Your task to perform on an android device: turn off javascript in the chrome app Image 0: 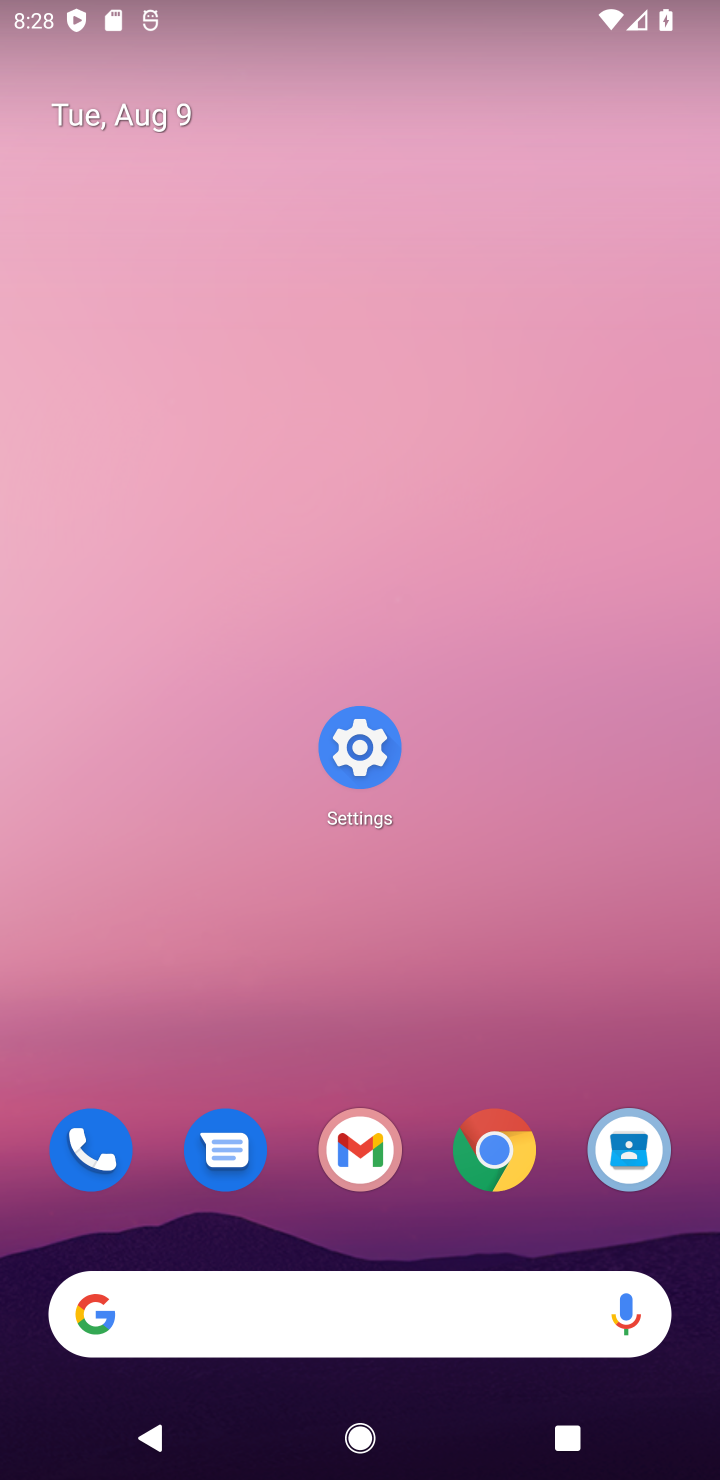
Step 0: press home button
Your task to perform on an android device: turn off javascript in the chrome app Image 1: 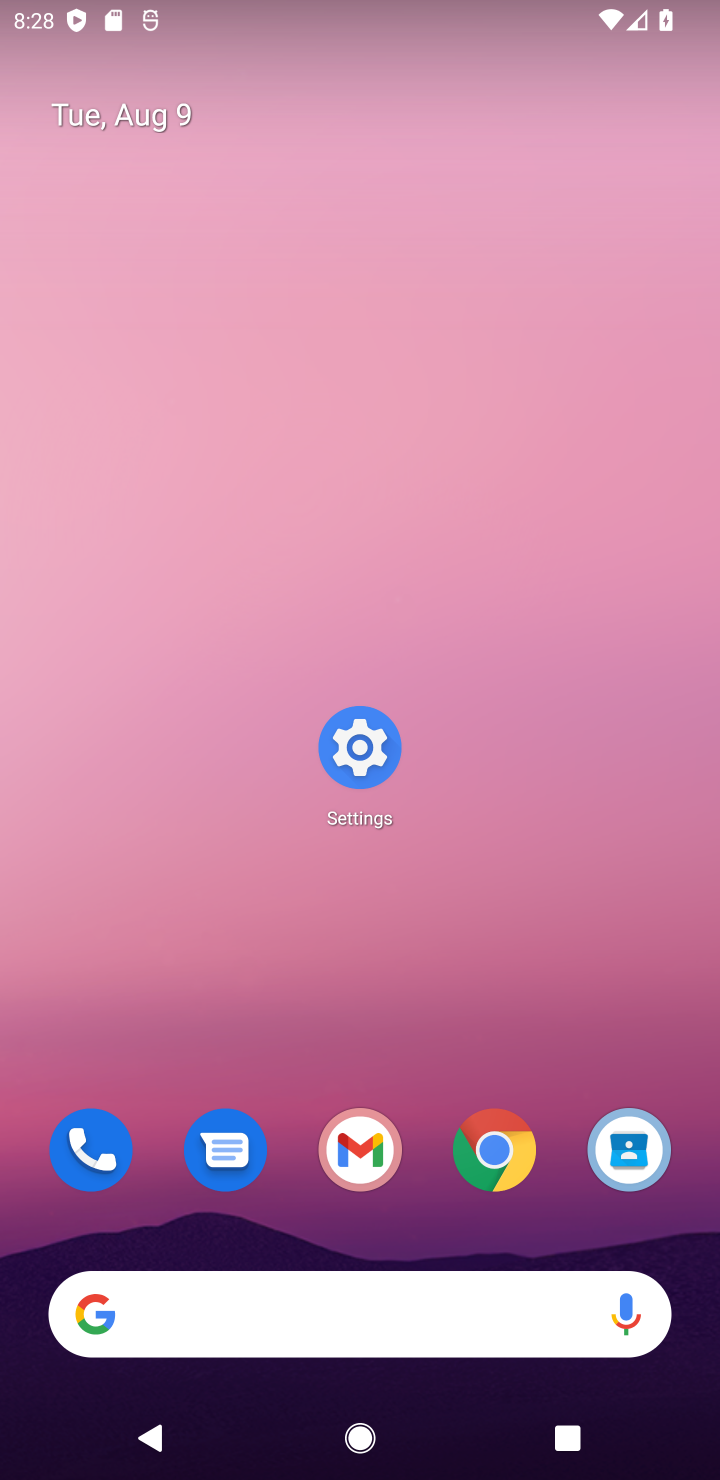
Step 1: click (527, 1138)
Your task to perform on an android device: turn off javascript in the chrome app Image 2: 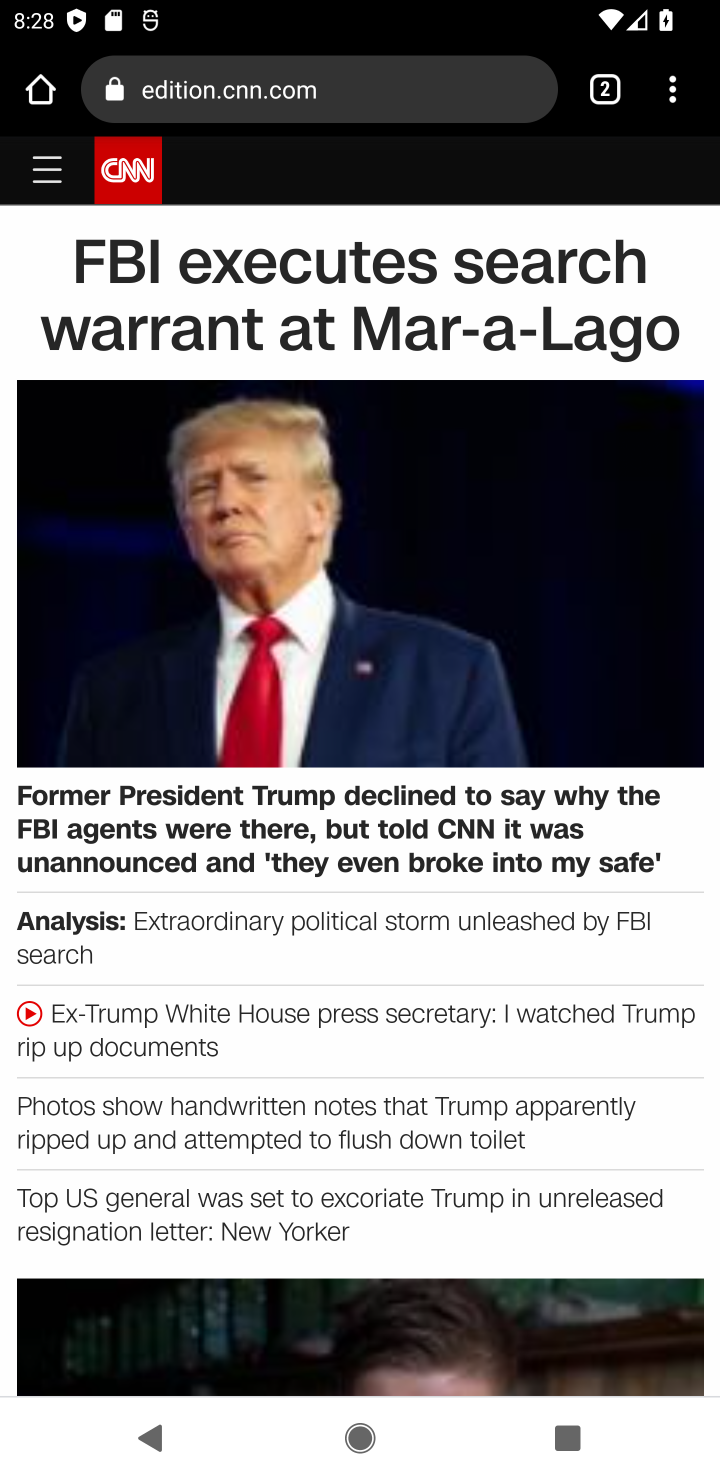
Step 2: drag from (674, 88) to (490, 1121)
Your task to perform on an android device: turn off javascript in the chrome app Image 3: 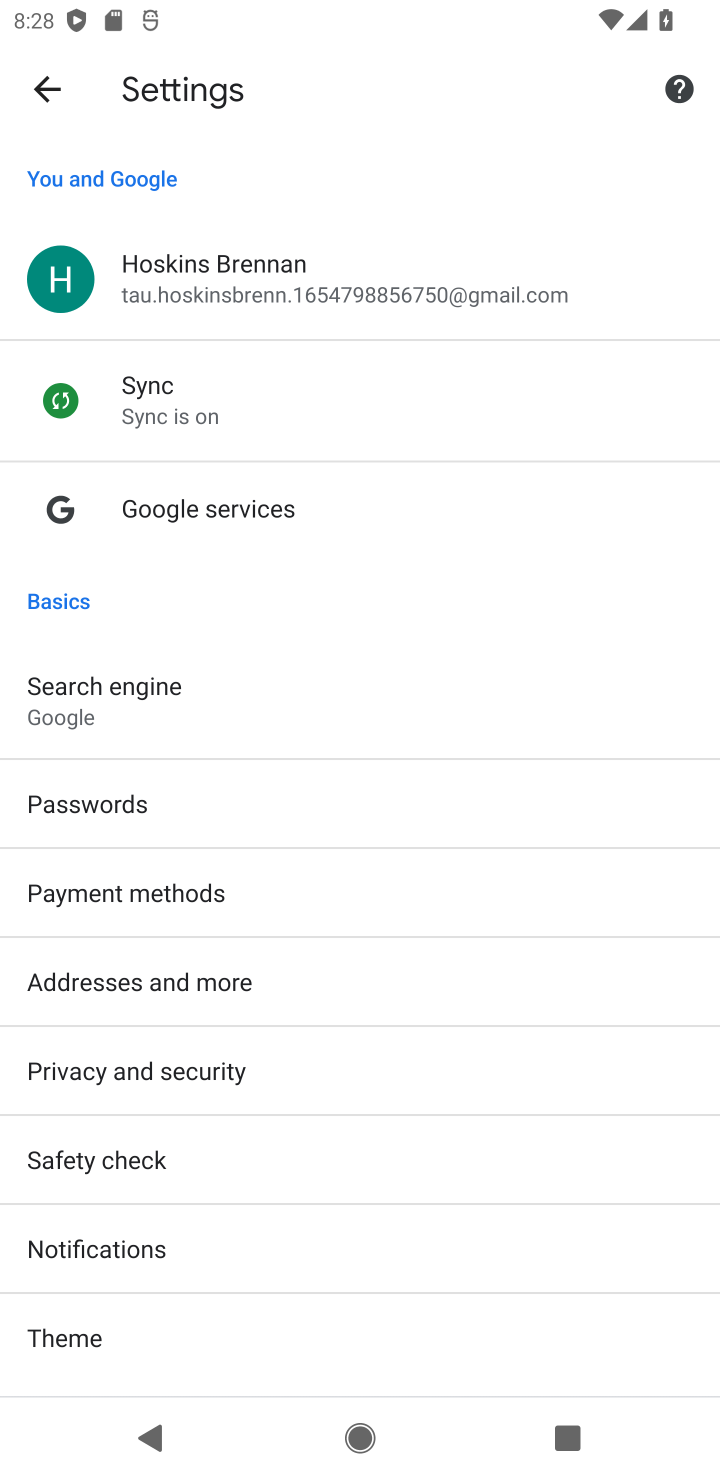
Step 3: drag from (342, 1162) to (457, 634)
Your task to perform on an android device: turn off javascript in the chrome app Image 4: 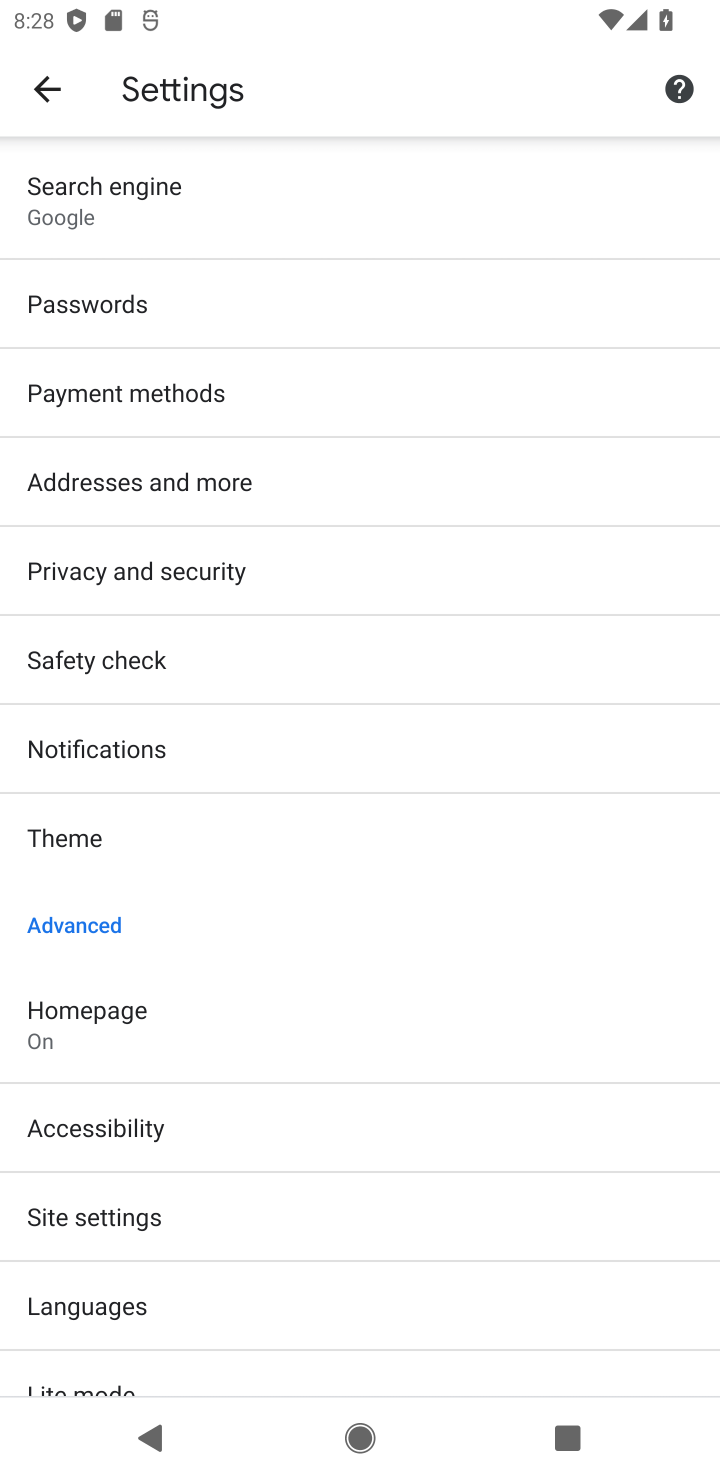
Step 4: click (145, 1225)
Your task to perform on an android device: turn off javascript in the chrome app Image 5: 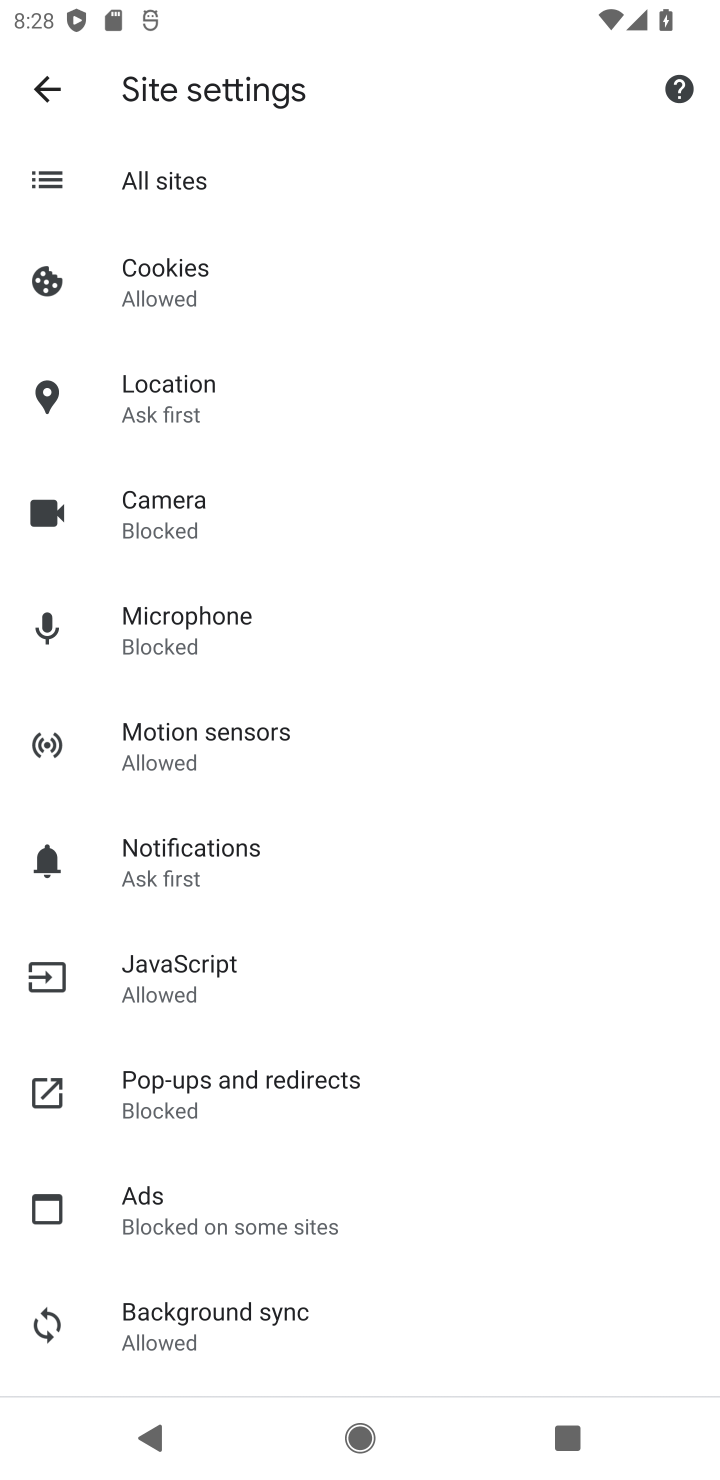
Step 5: click (207, 973)
Your task to perform on an android device: turn off javascript in the chrome app Image 6: 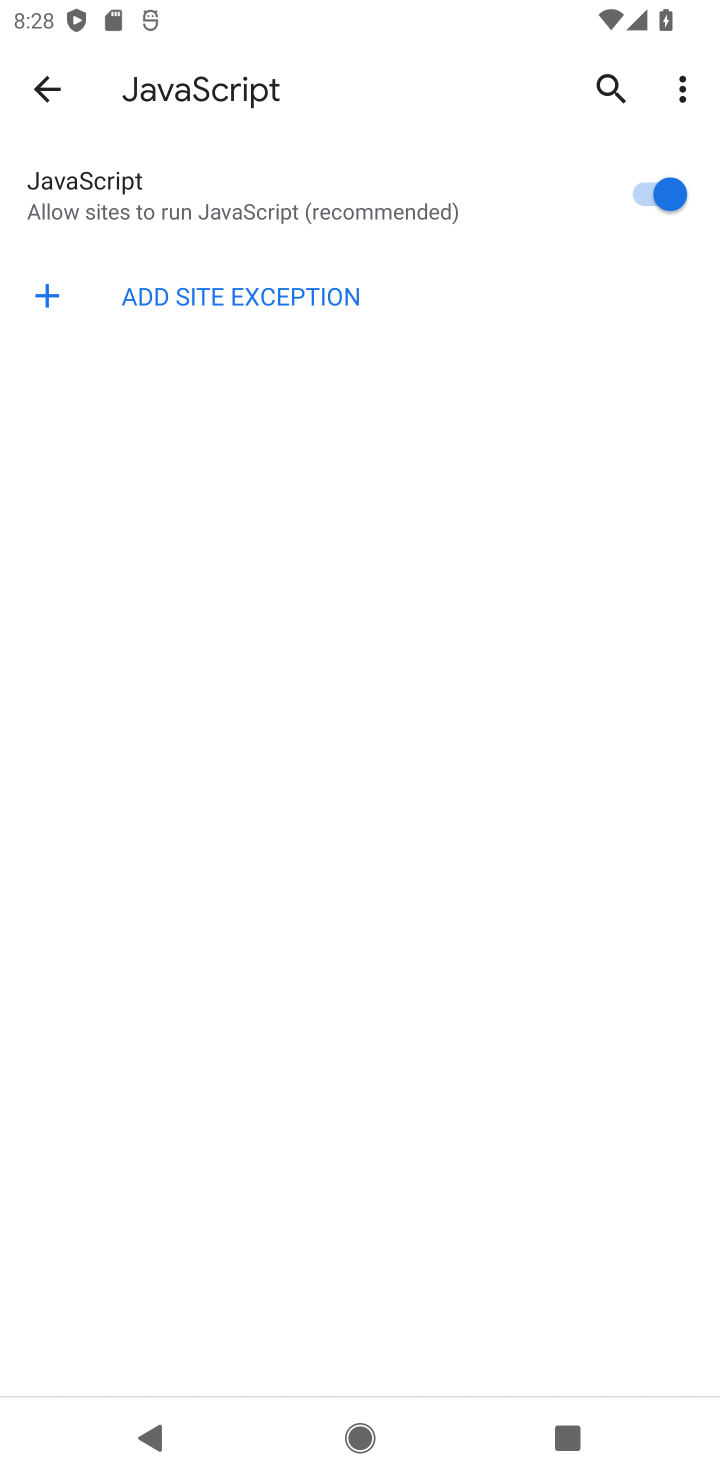
Step 6: click (641, 197)
Your task to perform on an android device: turn off javascript in the chrome app Image 7: 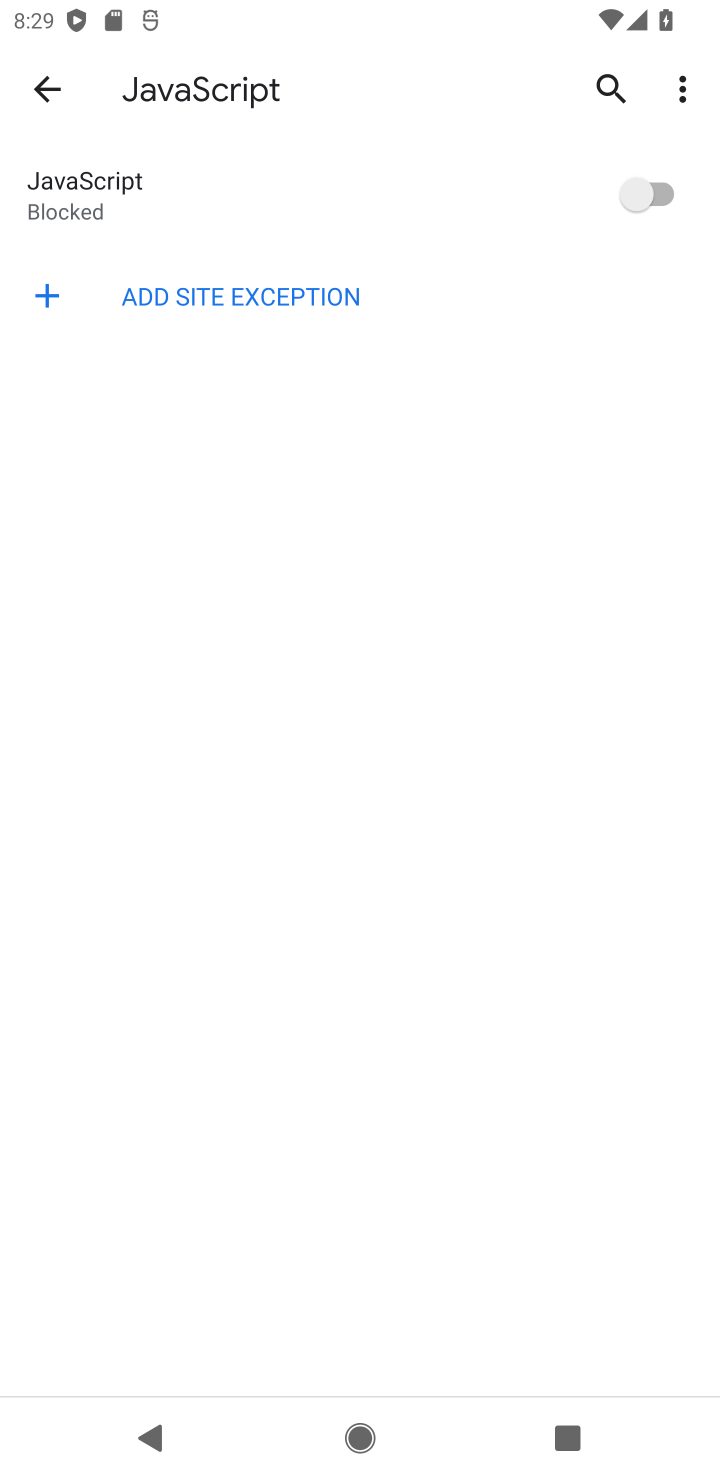
Step 7: task complete